Your task to perform on an android device: Go to notification settings Image 0: 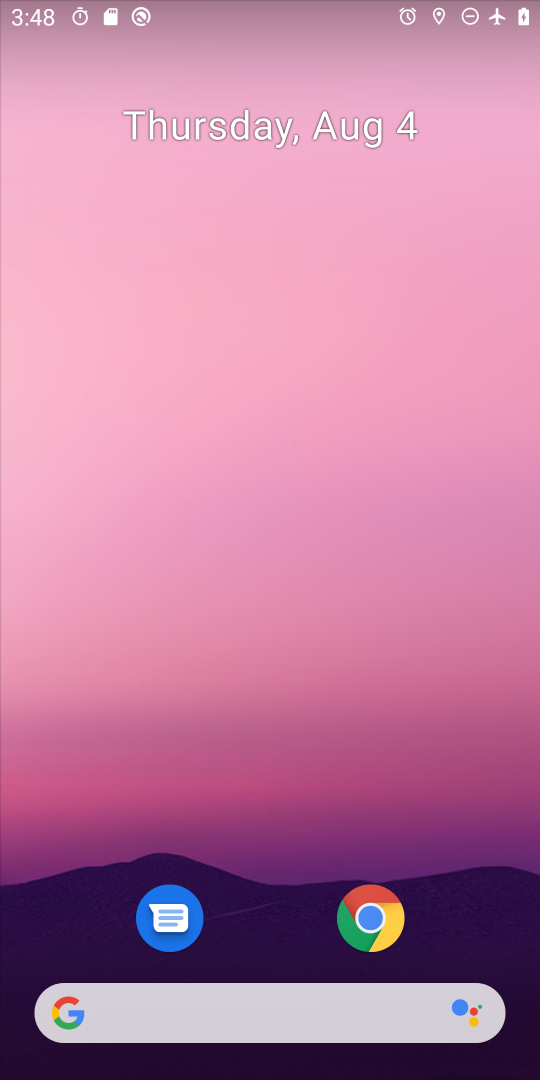
Step 0: drag from (249, 659) to (283, 288)
Your task to perform on an android device: Go to notification settings Image 1: 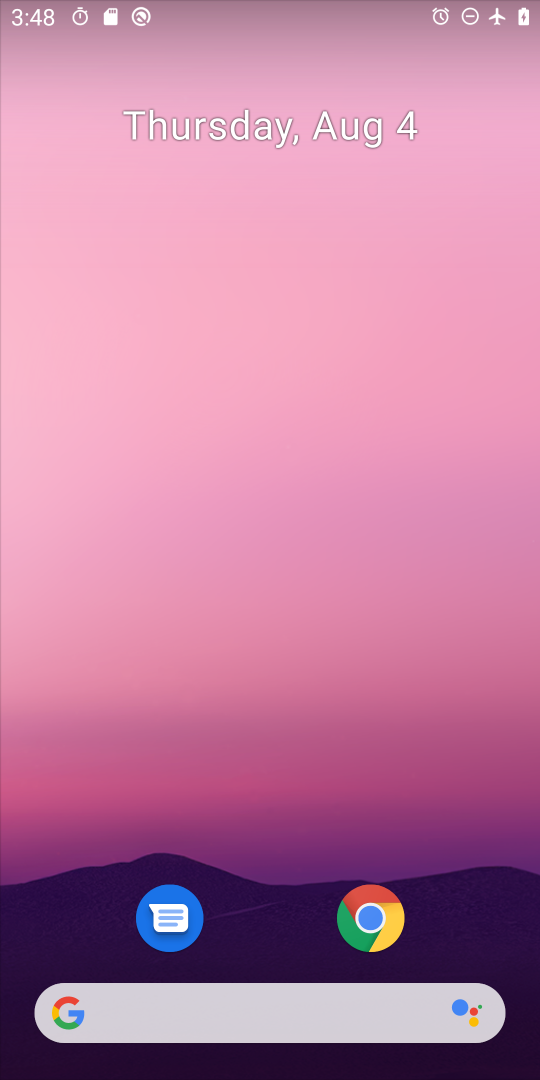
Step 1: drag from (248, 943) to (248, 168)
Your task to perform on an android device: Go to notification settings Image 2: 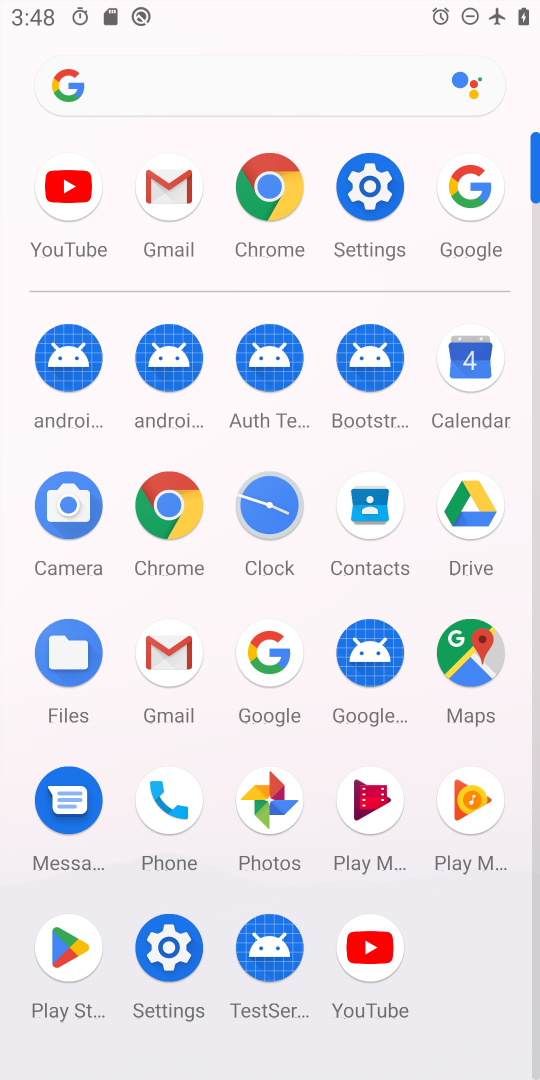
Step 2: click (356, 214)
Your task to perform on an android device: Go to notification settings Image 3: 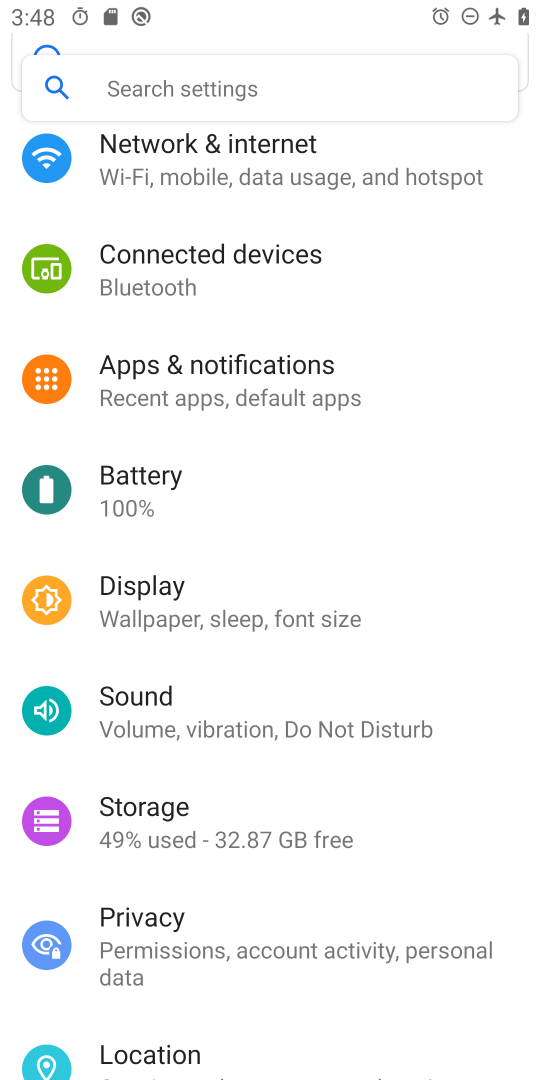
Step 3: click (268, 377)
Your task to perform on an android device: Go to notification settings Image 4: 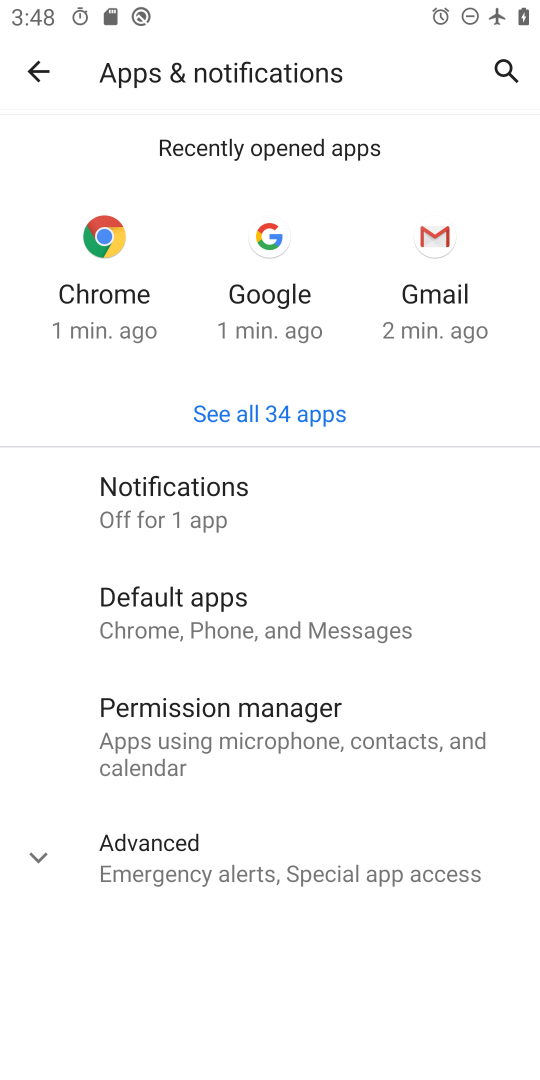
Step 4: click (242, 493)
Your task to perform on an android device: Go to notification settings Image 5: 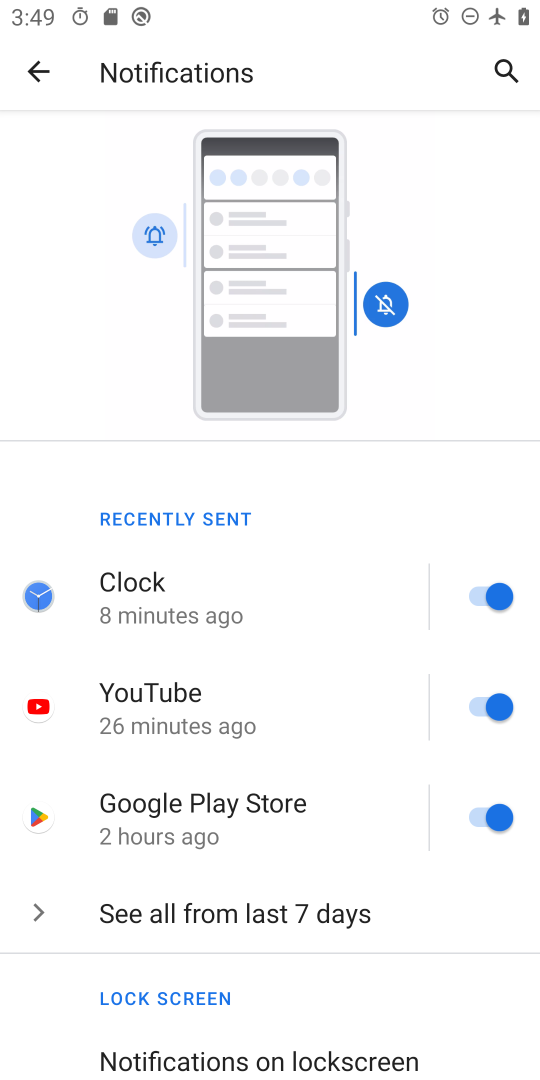
Step 5: task complete